Your task to perform on an android device: open wifi settings Image 0: 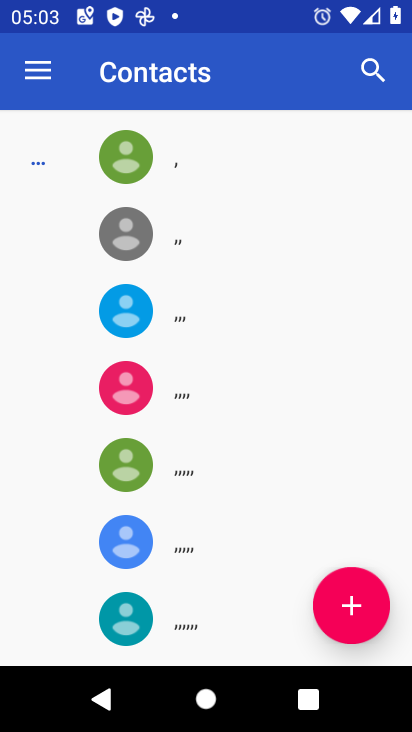
Step 0: press home button
Your task to perform on an android device: open wifi settings Image 1: 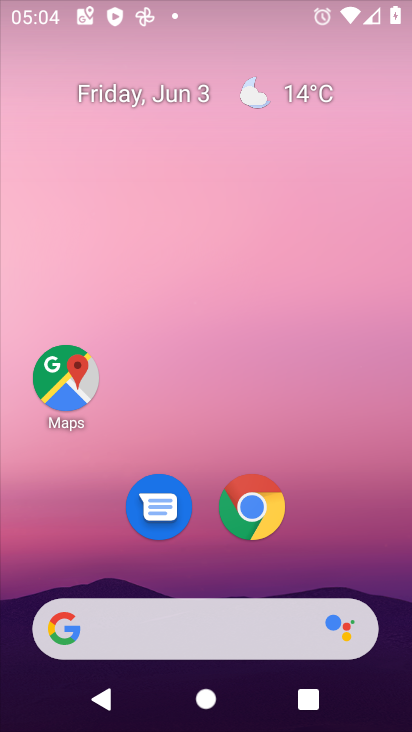
Step 1: drag from (329, 510) to (313, 103)
Your task to perform on an android device: open wifi settings Image 2: 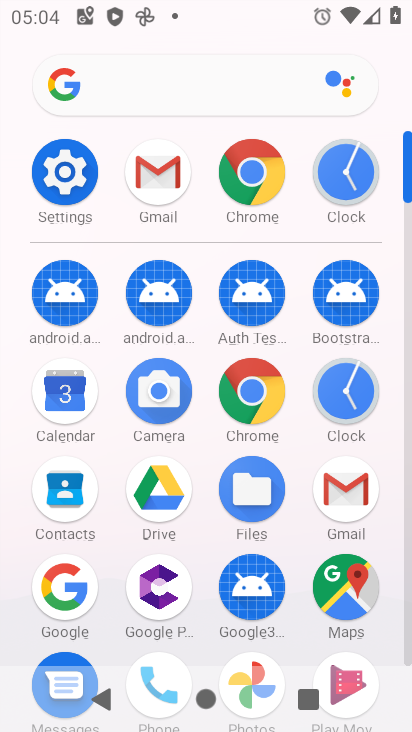
Step 2: click (51, 191)
Your task to perform on an android device: open wifi settings Image 3: 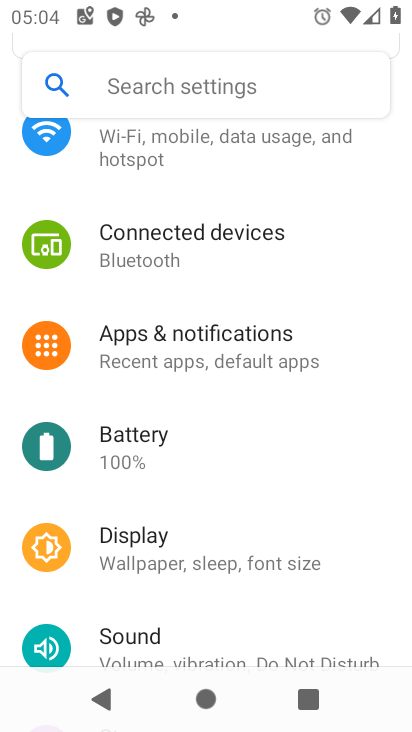
Step 3: click (257, 149)
Your task to perform on an android device: open wifi settings Image 4: 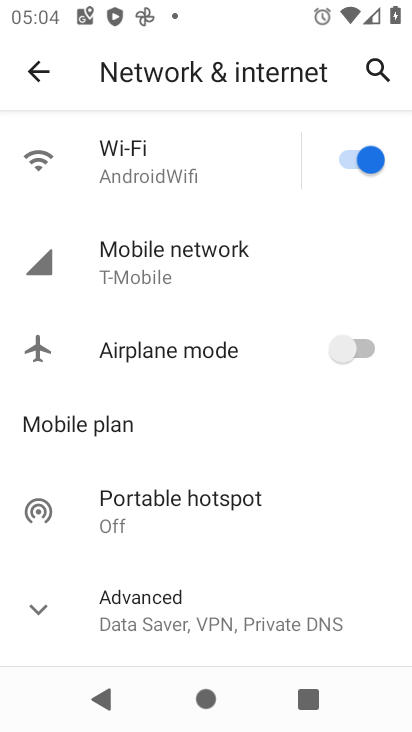
Step 4: click (164, 171)
Your task to perform on an android device: open wifi settings Image 5: 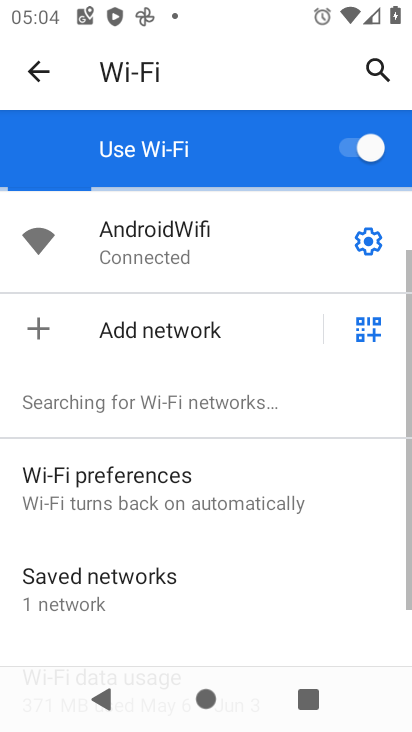
Step 5: task complete